Your task to perform on an android device: turn on priority inbox in the gmail app Image 0: 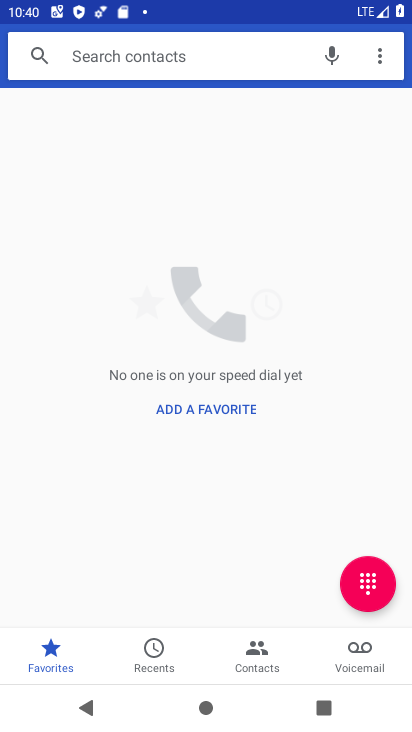
Step 0: press back button
Your task to perform on an android device: turn on priority inbox in the gmail app Image 1: 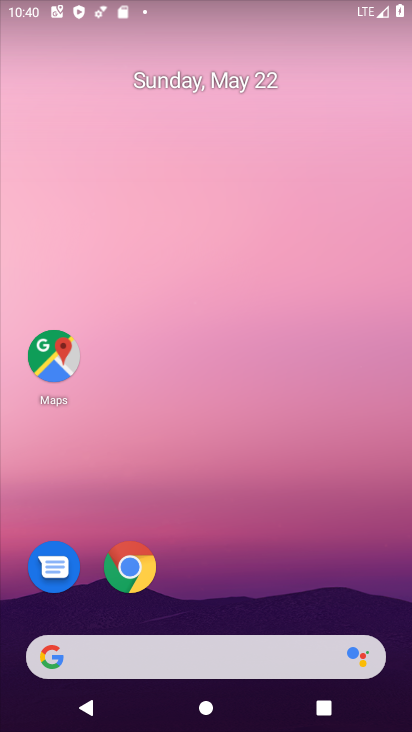
Step 1: drag from (252, 549) to (179, 0)
Your task to perform on an android device: turn on priority inbox in the gmail app Image 2: 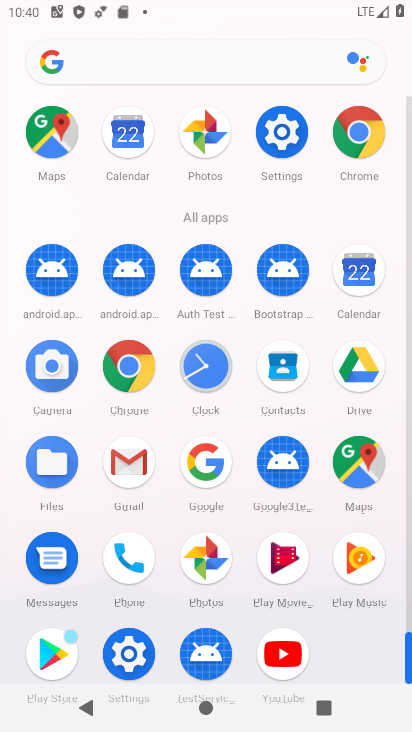
Step 2: drag from (10, 535) to (4, 284)
Your task to perform on an android device: turn on priority inbox in the gmail app Image 3: 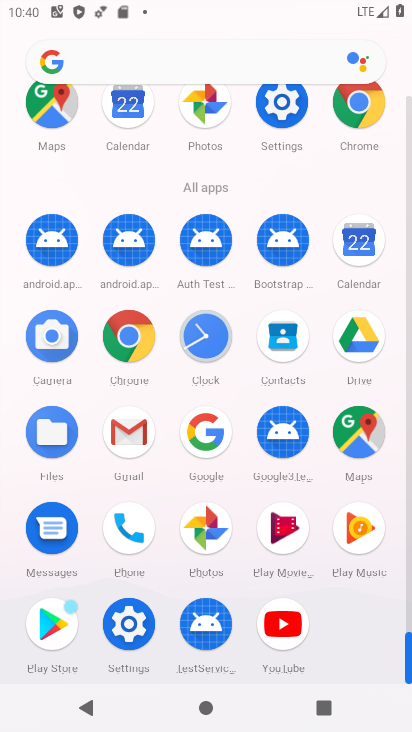
Step 3: click (130, 427)
Your task to perform on an android device: turn on priority inbox in the gmail app Image 4: 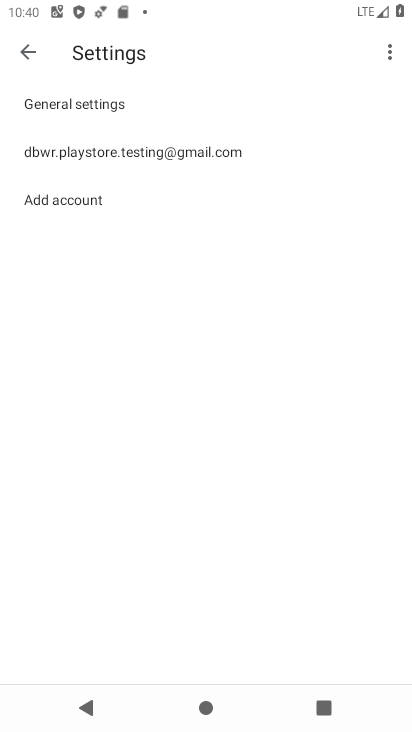
Step 4: click (29, 48)
Your task to perform on an android device: turn on priority inbox in the gmail app Image 5: 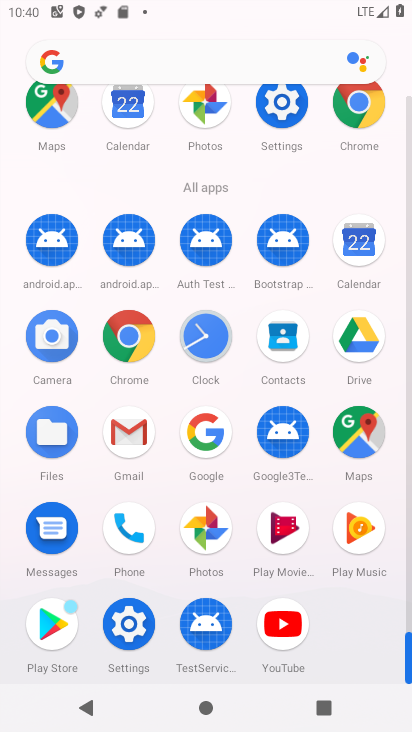
Step 5: click (128, 442)
Your task to perform on an android device: turn on priority inbox in the gmail app Image 6: 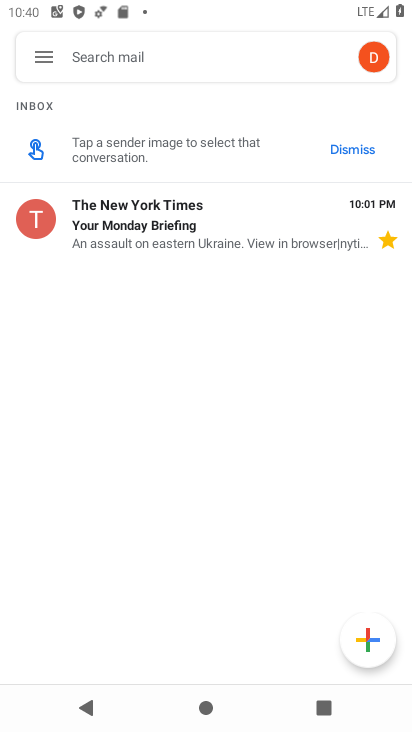
Step 6: click (43, 61)
Your task to perform on an android device: turn on priority inbox in the gmail app Image 7: 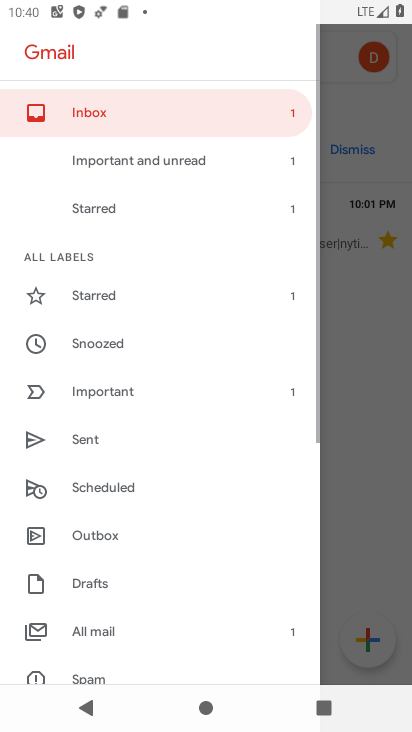
Step 7: drag from (137, 599) to (182, 165)
Your task to perform on an android device: turn on priority inbox in the gmail app Image 8: 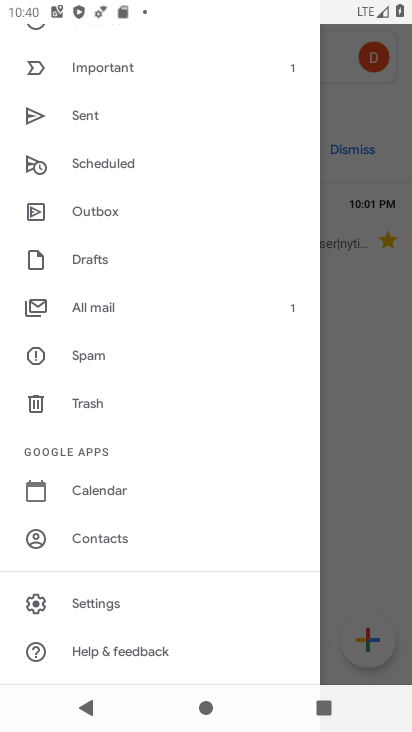
Step 8: click (102, 608)
Your task to perform on an android device: turn on priority inbox in the gmail app Image 9: 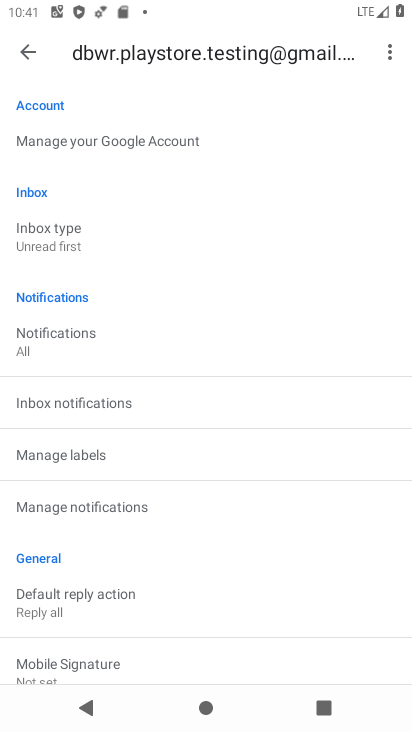
Step 9: click (92, 242)
Your task to perform on an android device: turn on priority inbox in the gmail app Image 10: 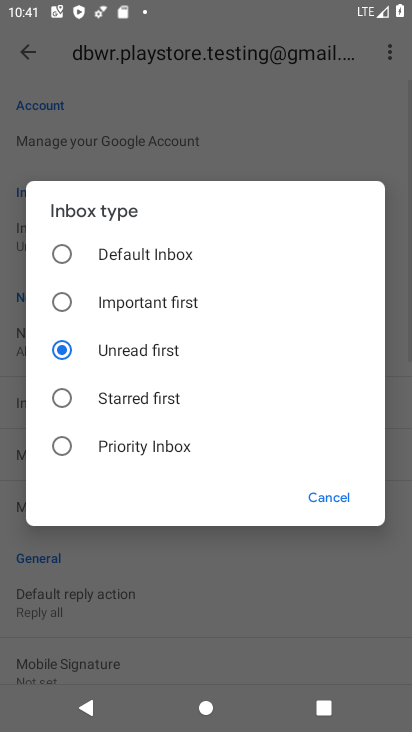
Step 10: click (129, 441)
Your task to perform on an android device: turn on priority inbox in the gmail app Image 11: 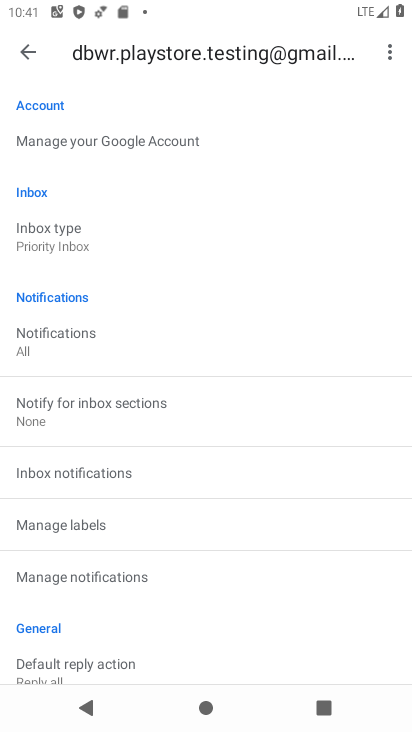
Step 11: task complete